Your task to perform on an android device: turn off wifi Image 0: 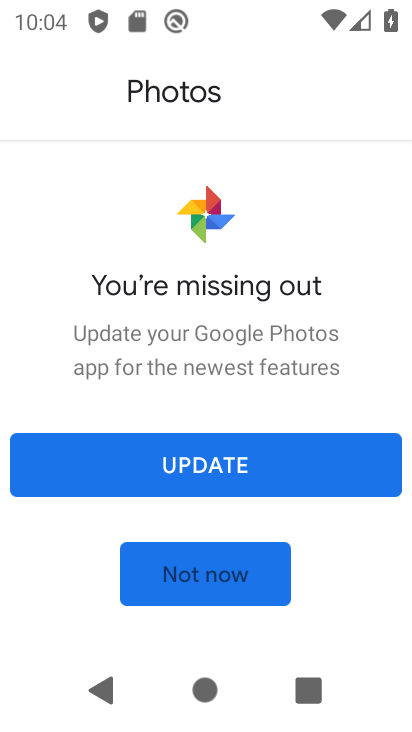
Step 0: drag from (147, 5) to (196, 693)
Your task to perform on an android device: turn off wifi Image 1: 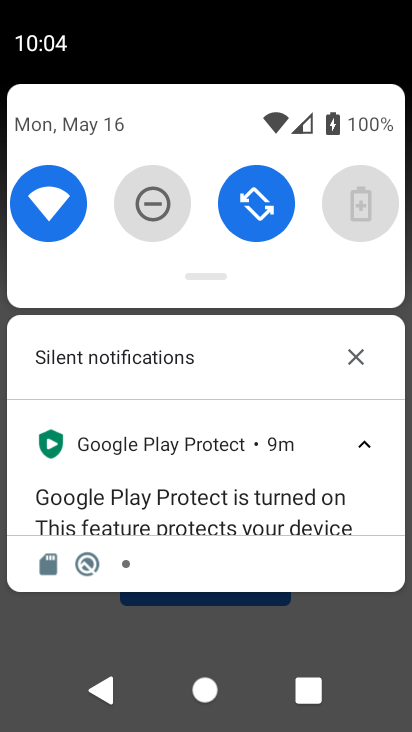
Step 1: click (53, 214)
Your task to perform on an android device: turn off wifi Image 2: 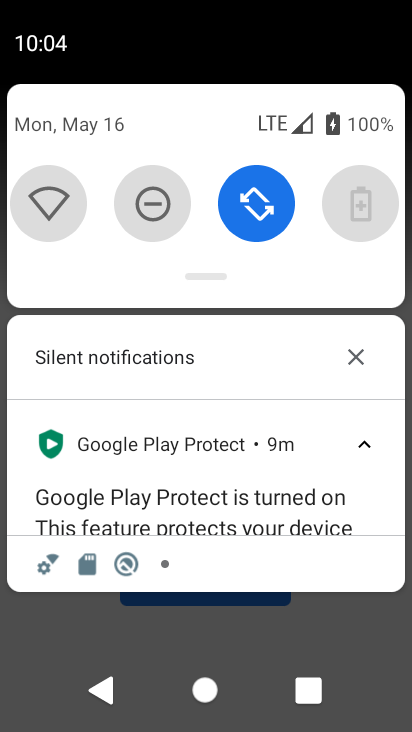
Step 2: task complete